Your task to perform on an android device: Open Google Chrome Image 0: 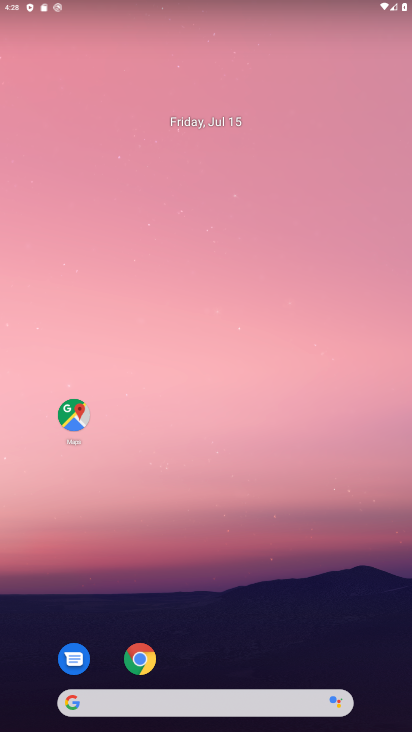
Step 0: click (135, 643)
Your task to perform on an android device: Open Google Chrome Image 1: 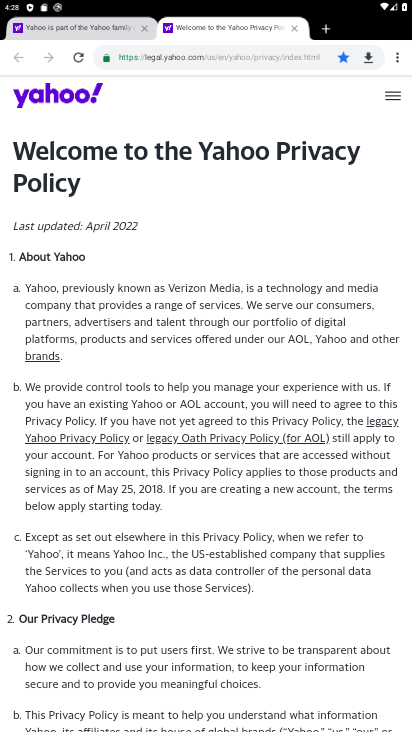
Step 1: task complete